Your task to perform on an android device: turn on javascript in the chrome app Image 0: 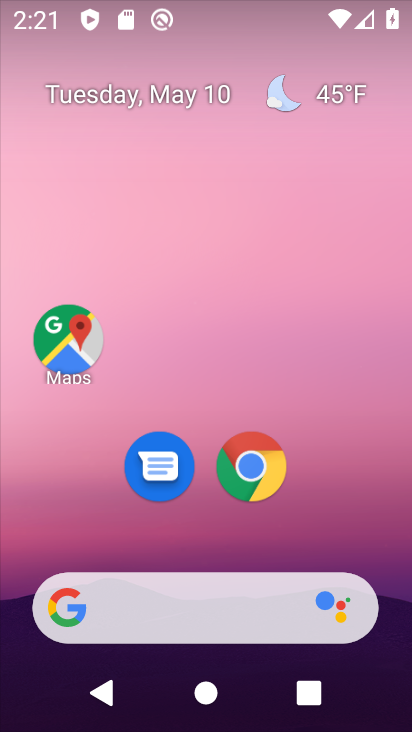
Step 0: click (244, 468)
Your task to perform on an android device: turn on javascript in the chrome app Image 1: 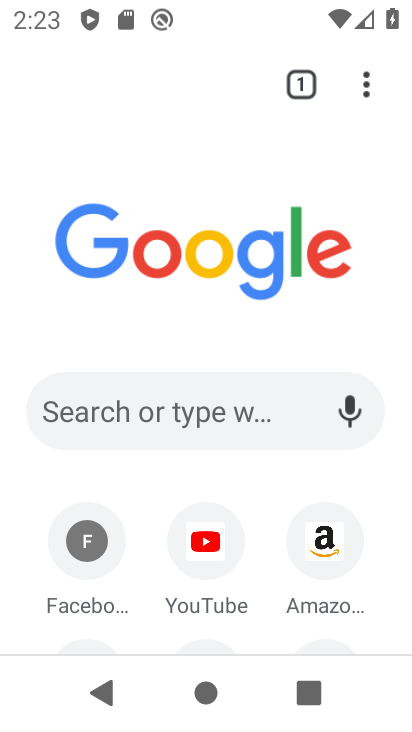
Step 1: click (364, 77)
Your task to perform on an android device: turn on javascript in the chrome app Image 2: 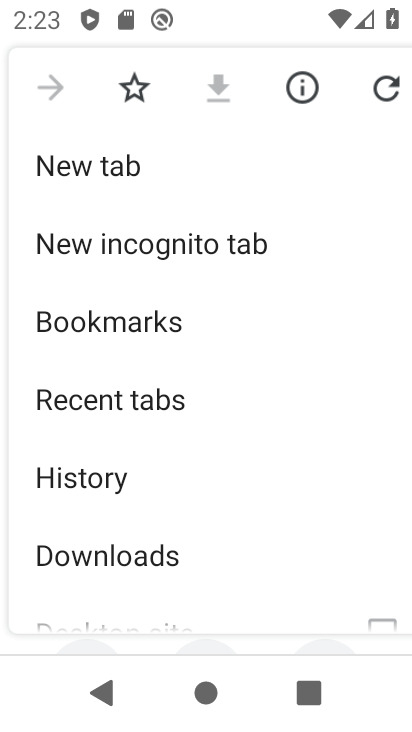
Step 2: drag from (264, 452) to (252, 268)
Your task to perform on an android device: turn on javascript in the chrome app Image 3: 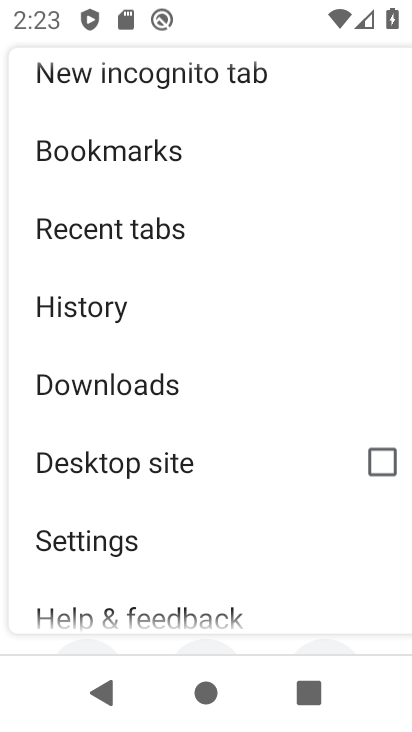
Step 3: click (91, 536)
Your task to perform on an android device: turn on javascript in the chrome app Image 4: 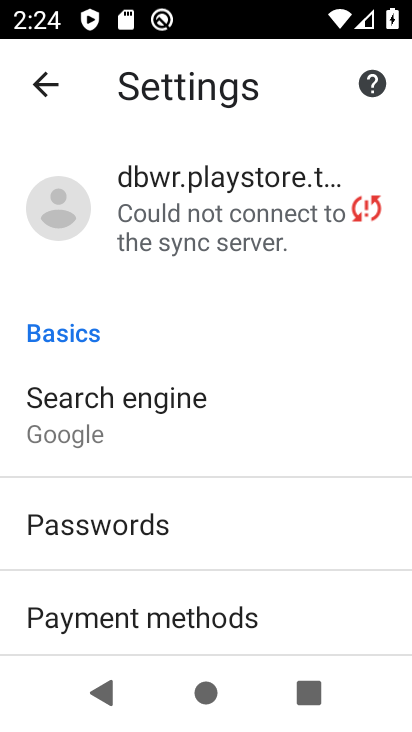
Step 4: drag from (321, 618) to (308, 348)
Your task to perform on an android device: turn on javascript in the chrome app Image 5: 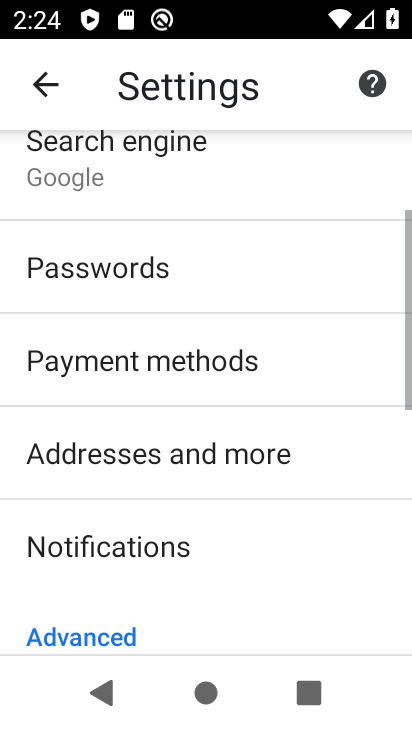
Step 5: drag from (278, 614) to (255, 376)
Your task to perform on an android device: turn on javascript in the chrome app Image 6: 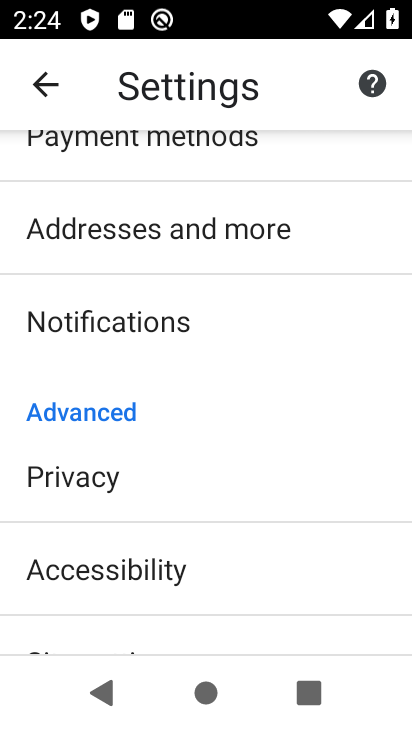
Step 6: drag from (262, 600) to (233, 450)
Your task to perform on an android device: turn on javascript in the chrome app Image 7: 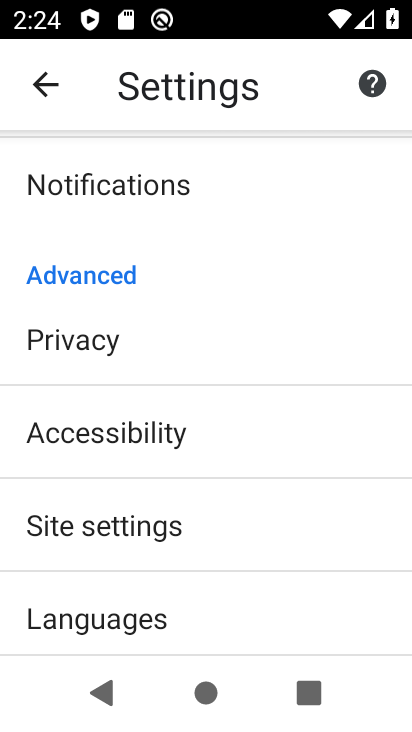
Step 7: click (170, 533)
Your task to perform on an android device: turn on javascript in the chrome app Image 8: 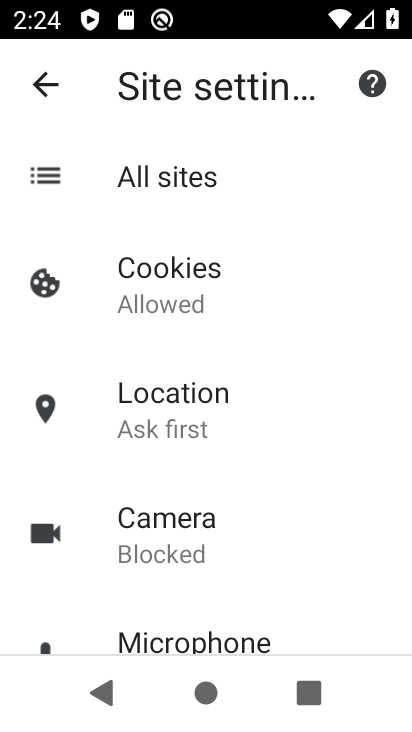
Step 8: drag from (300, 607) to (298, 290)
Your task to perform on an android device: turn on javascript in the chrome app Image 9: 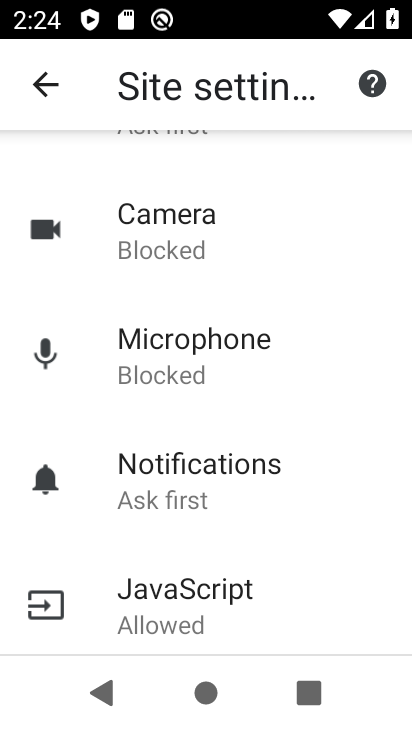
Step 9: click (202, 601)
Your task to perform on an android device: turn on javascript in the chrome app Image 10: 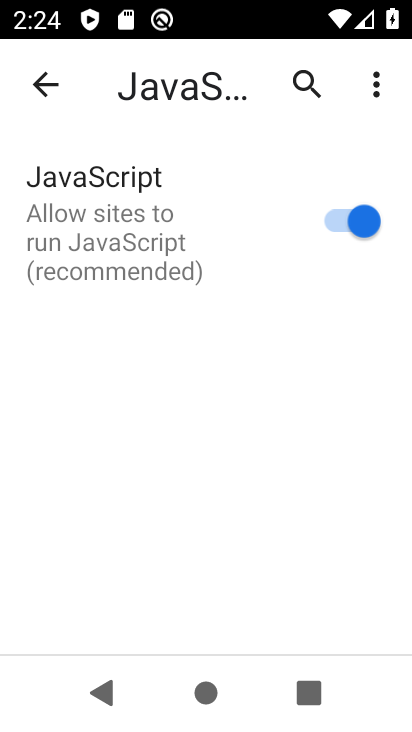
Step 10: task complete